Your task to perform on an android device: Open the web browser Image 0: 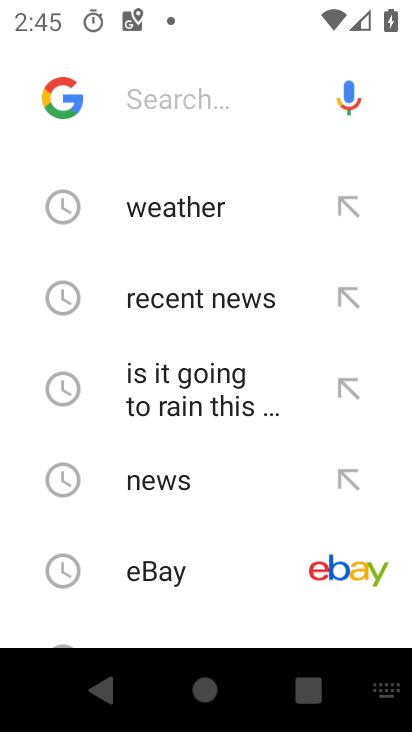
Step 0: press home button
Your task to perform on an android device: Open the web browser Image 1: 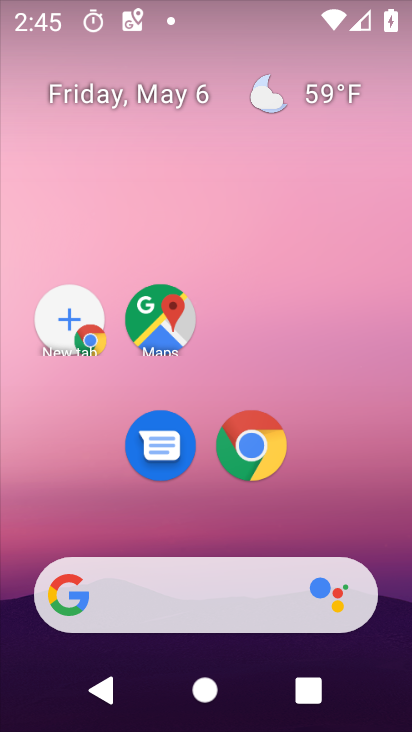
Step 1: drag from (364, 536) to (189, 90)
Your task to perform on an android device: Open the web browser Image 2: 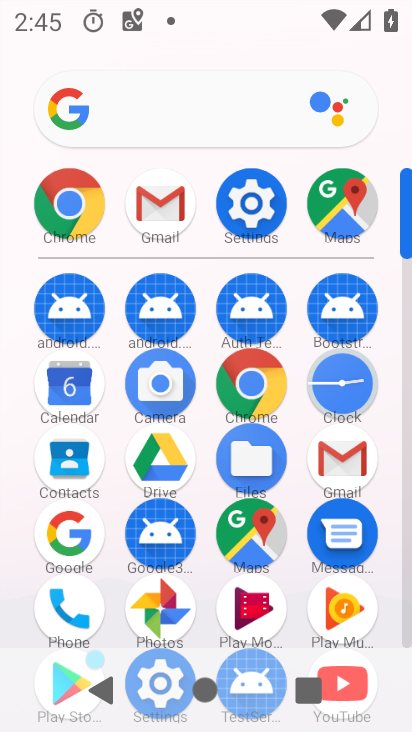
Step 2: click (75, 209)
Your task to perform on an android device: Open the web browser Image 3: 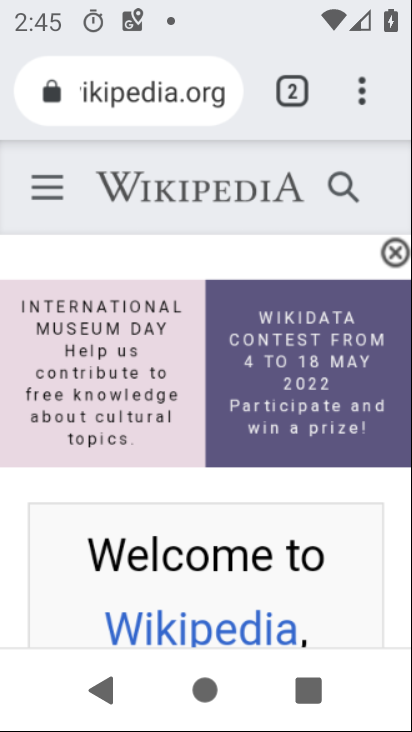
Step 3: click (60, 211)
Your task to perform on an android device: Open the web browser Image 4: 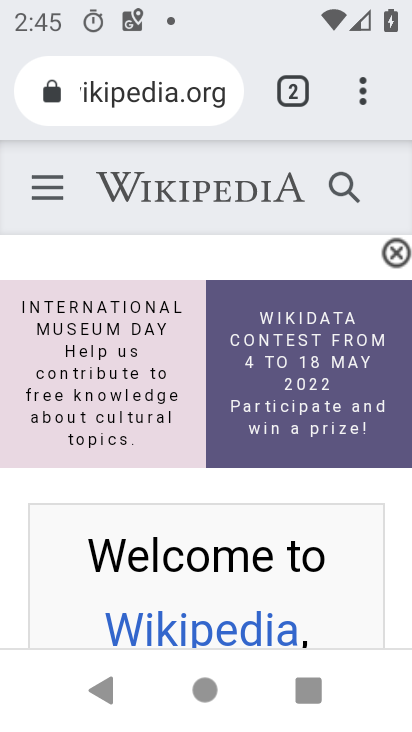
Step 4: drag from (365, 92) to (89, 176)
Your task to perform on an android device: Open the web browser Image 5: 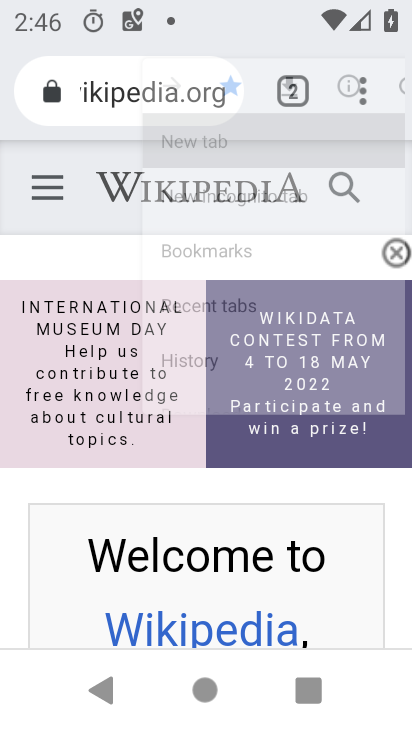
Step 5: click (89, 176)
Your task to perform on an android device: Open the web browser Image 6: 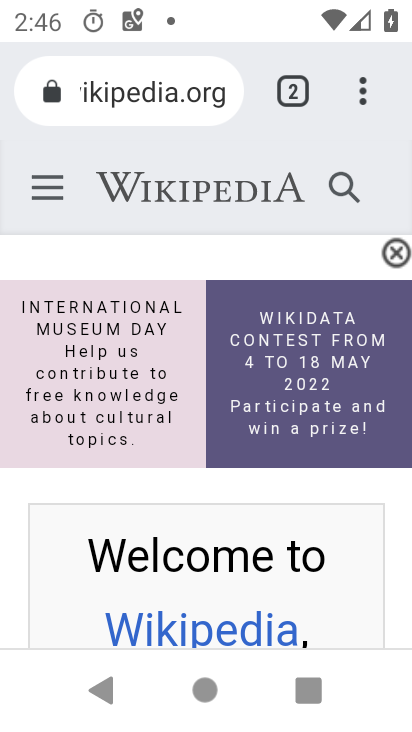
Step 6: click (90, 175)
Your task to perform on an android device: Open the web browser Image 7: 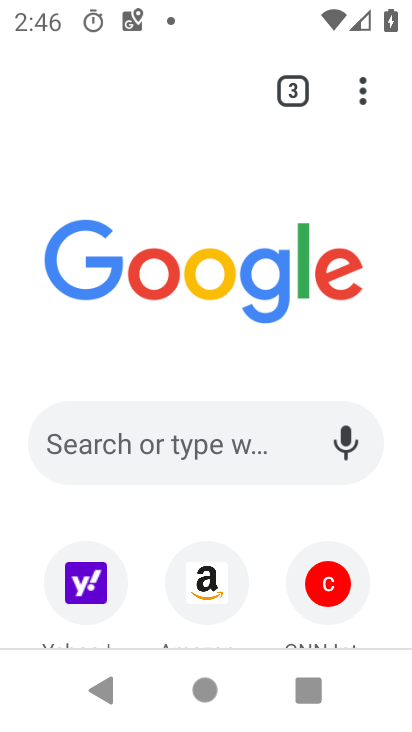
Step 7: task complete